Your task to perform on an android device: Go to privacy settings Image 0: 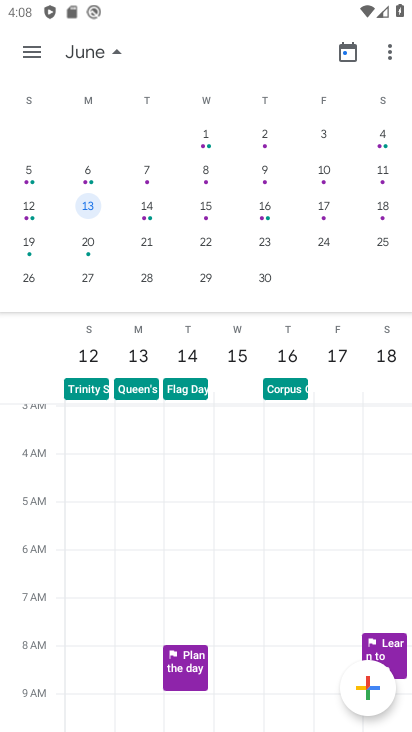
Step 0: press home button
Your task to perform on an android device: Go to privacy settings Image 1: 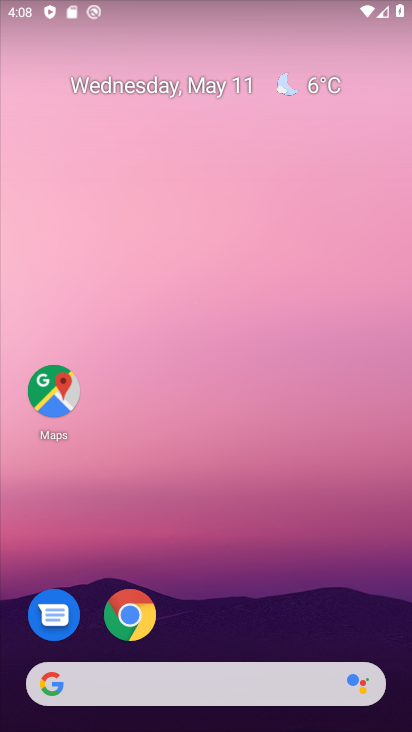
Step 1: drag from (332, 540) to (286, 189)
Your task to perform on an android device: Go to privacy settings Image 2: 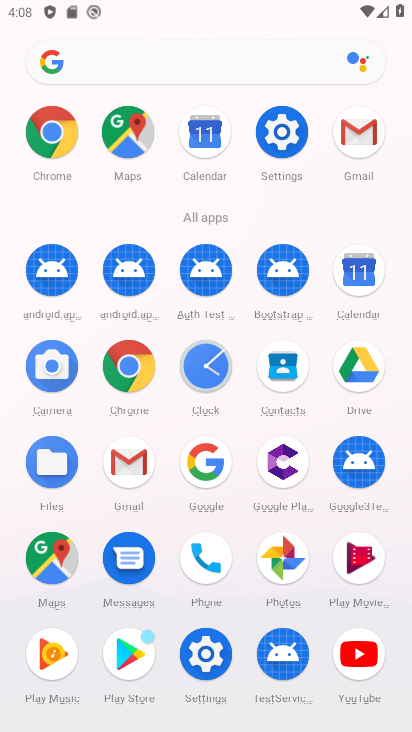
Step 2: click (199, 650)
Your task to perform on an android device: Go to privacy settings Image 3: 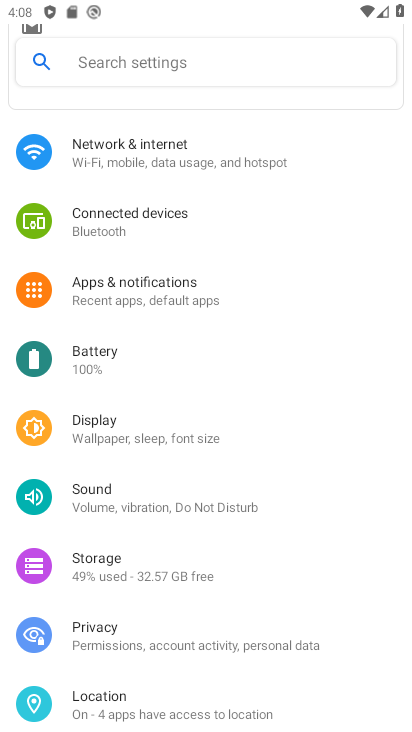
Step 3: click (135, 637)
Your task to perform on an android device: Go to privacy settings Image 4: 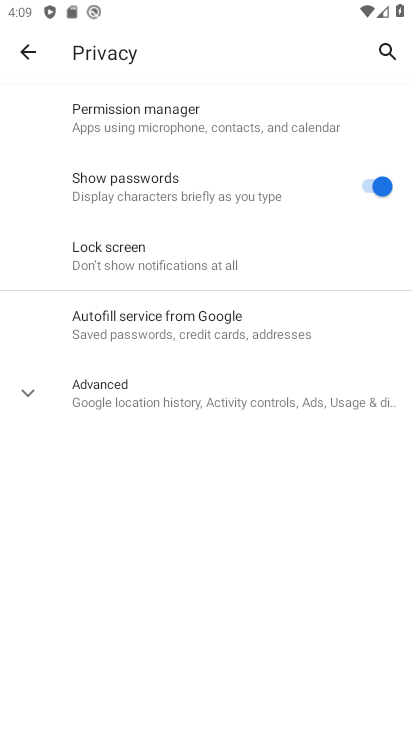
Step 4: task complete